Your task to perform on an android device: visit the assistant section in the google photos Image 0: 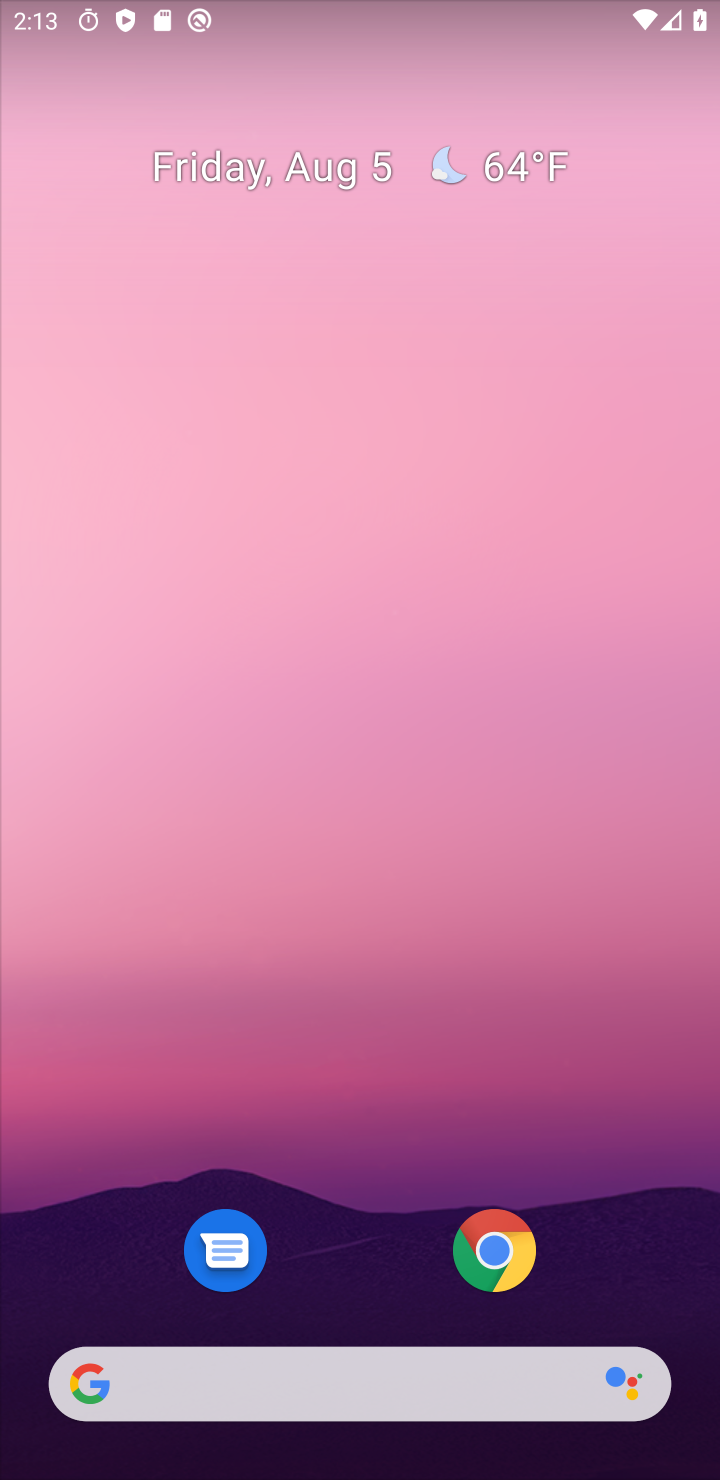
Step 0: click (464, 281)
Your task to perform on an android device: visit the assistant section in the google photos Image 1: 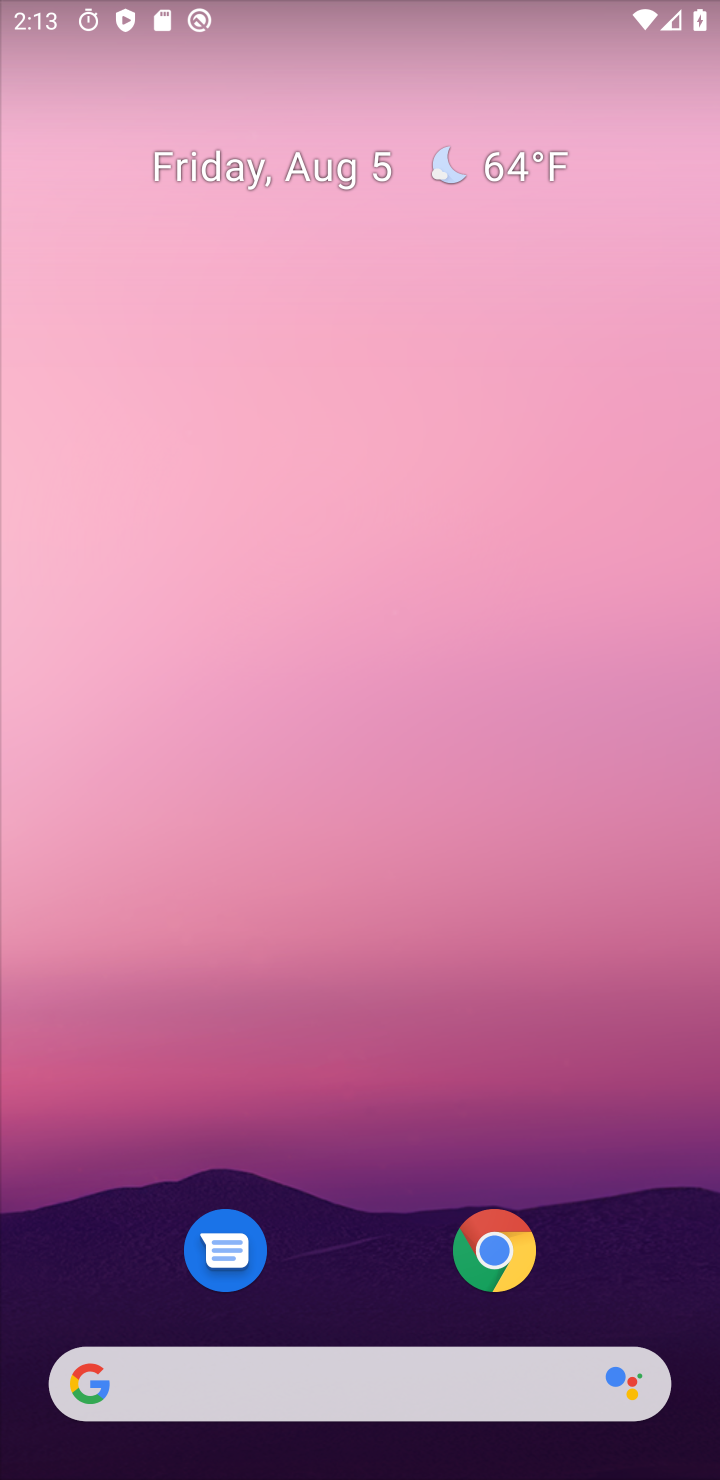
Step 1: drag from (347, 1100) to (448, 415)
Your task to perform on an android device: visit the assistant section in the google photos Image 2: 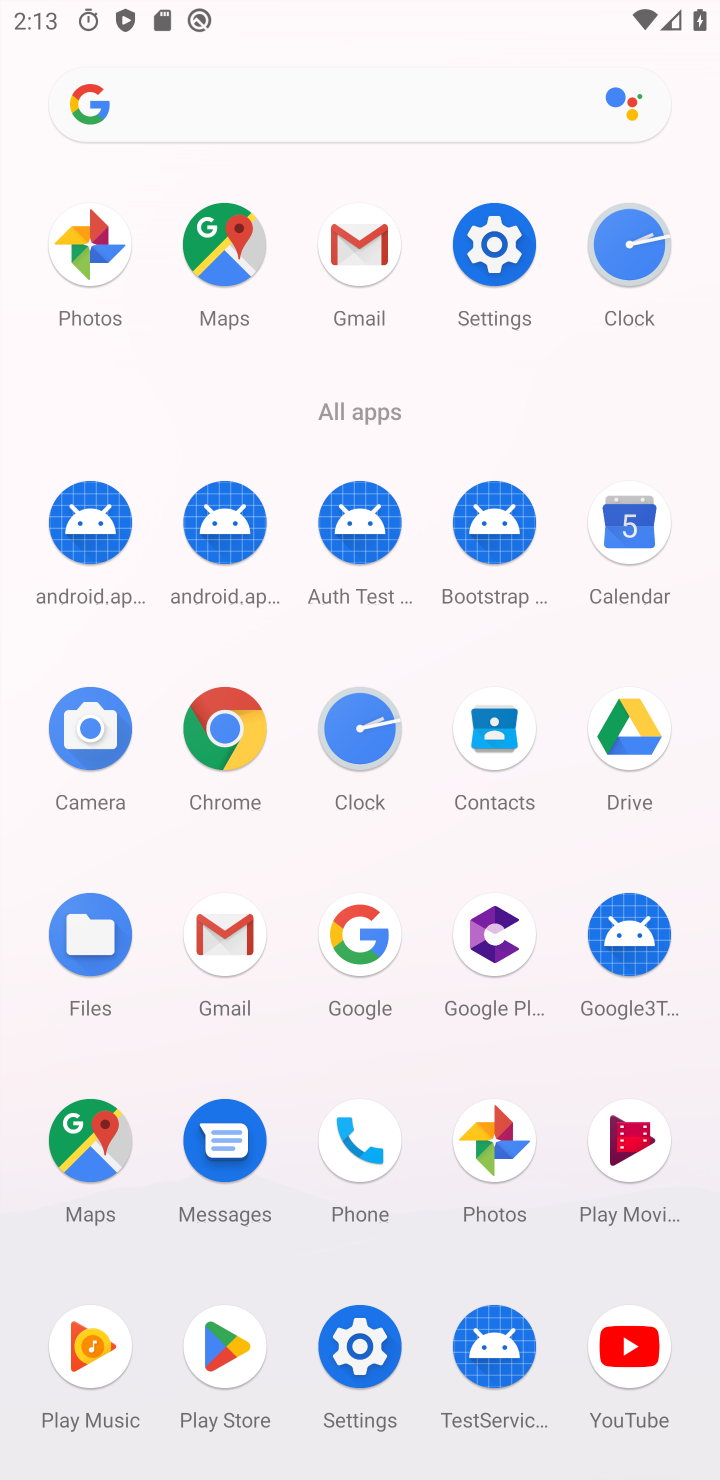
Step 2: click (477, 1146)
Your task to perform on an android device: visit the assistant section in the google photos Image 3: 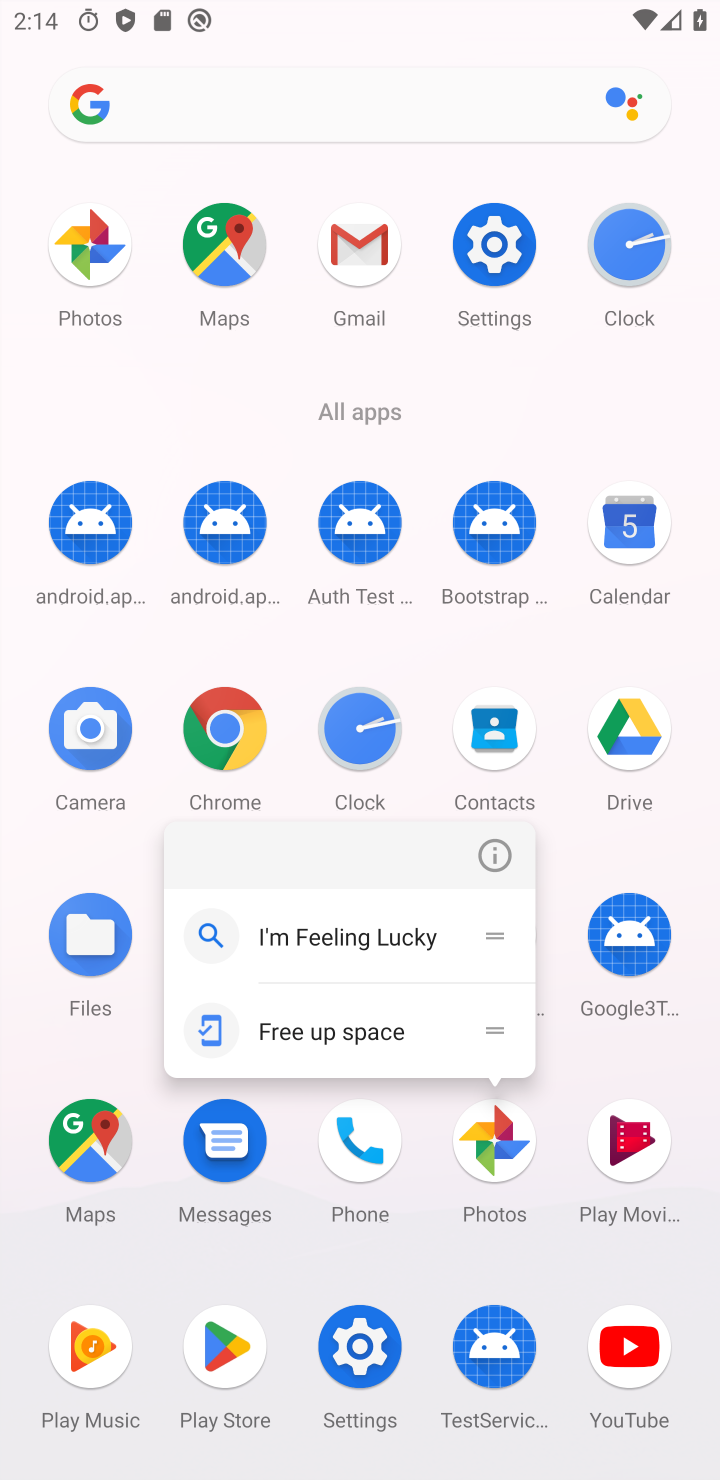
Step 3: click (480, 847)
Your task to perform on an android device: visit the assistant section in the google photos Image 4: 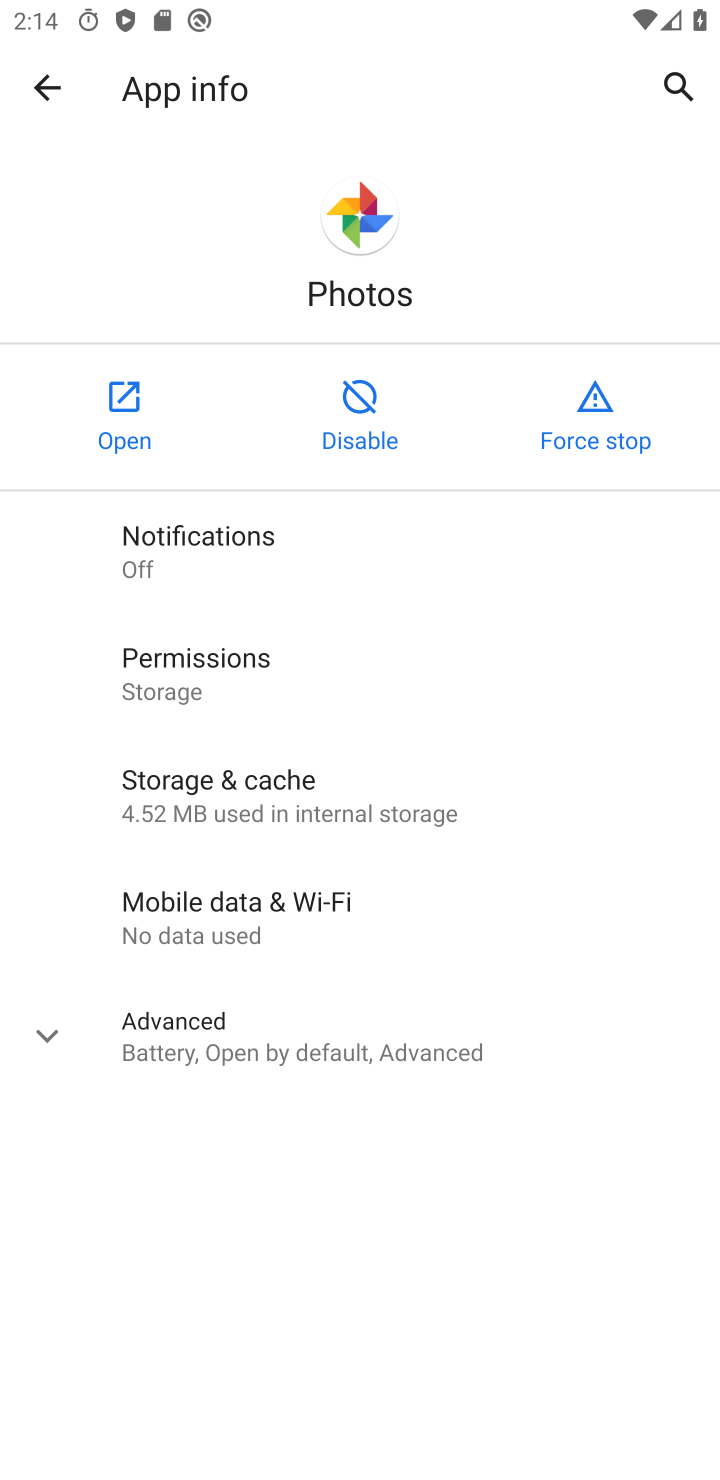
Step 4: click (139, 388)
Your task to perform on an android device: visit the assistant section in the google photos Image 5: 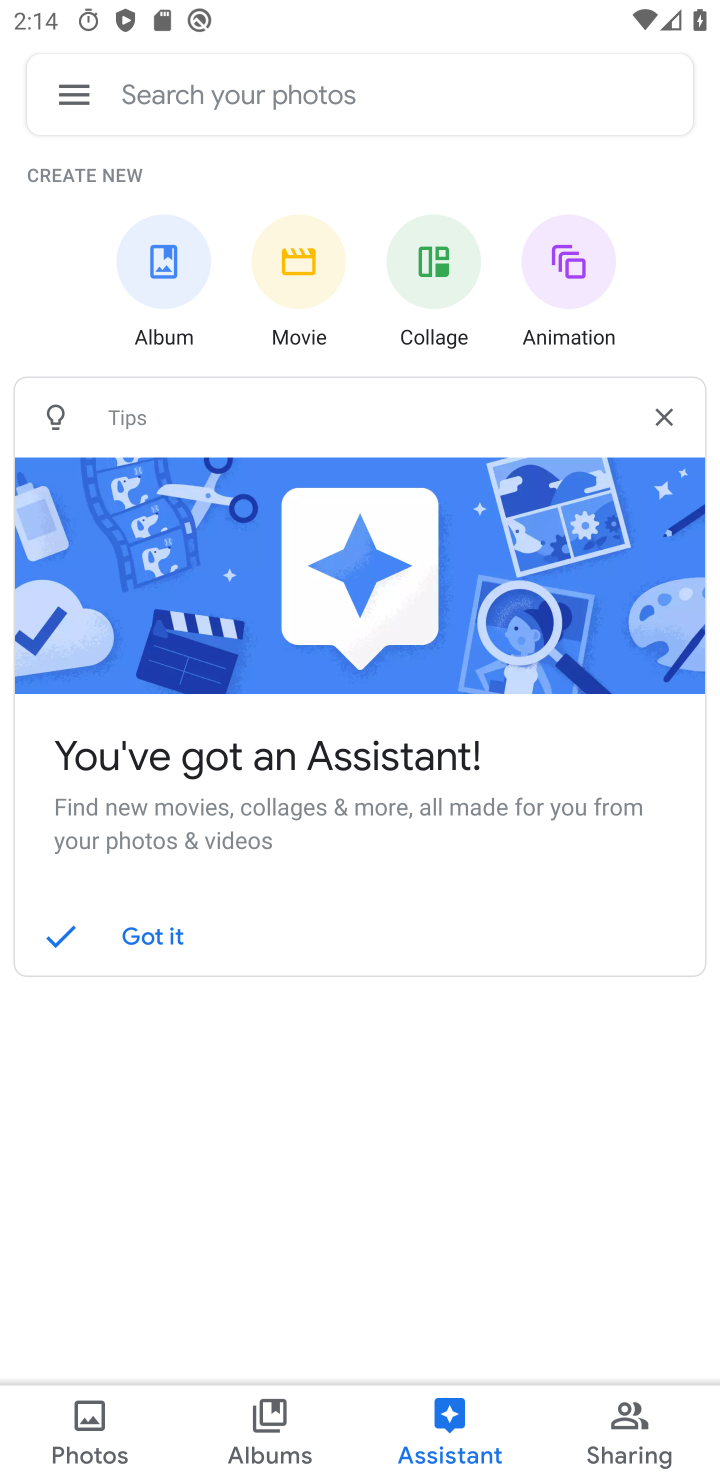
Step 5: click (417, 1414)
Your task to perform on an android device: visit the assistant section in the google photos Image 6: 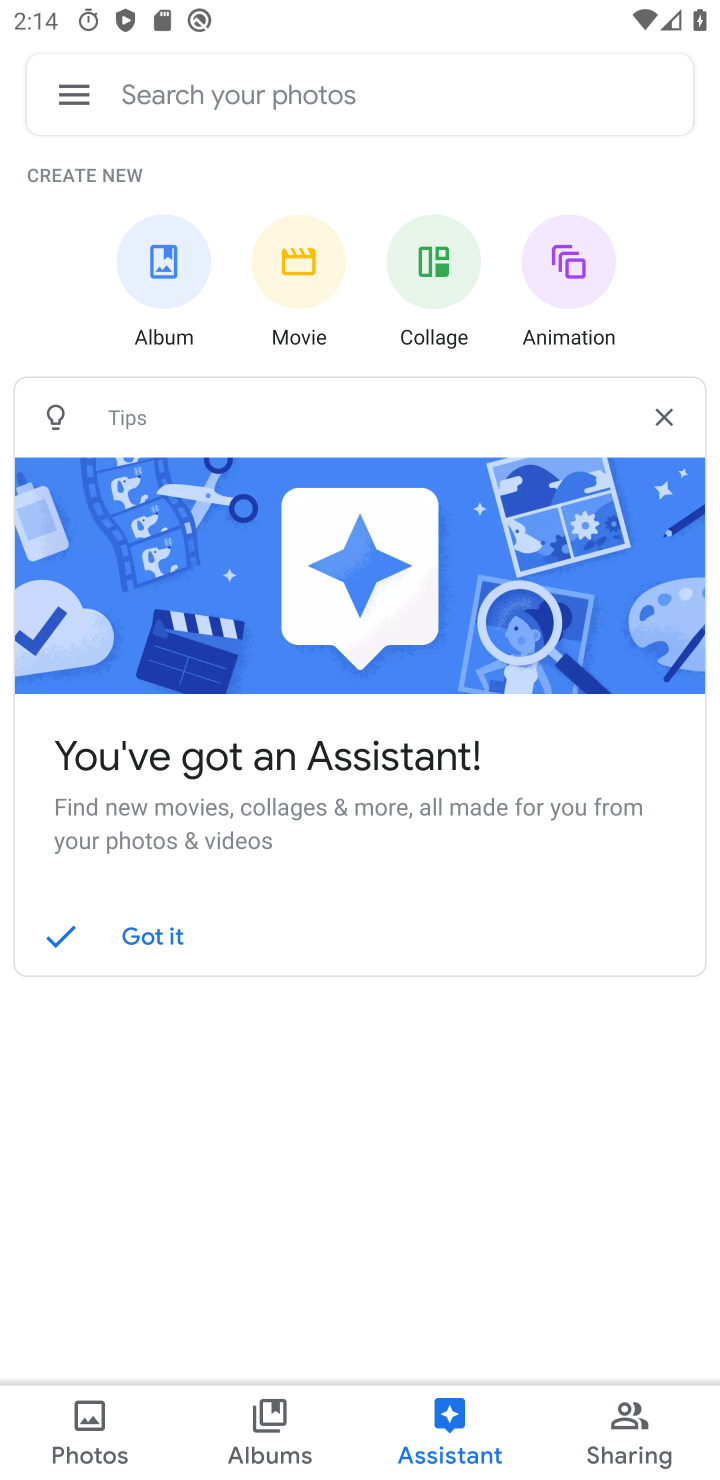
Step 6: task complete